Your task to perform on an android device: Add lenovo thinkpad to the cart on target.com, then select checkout. Image 0: 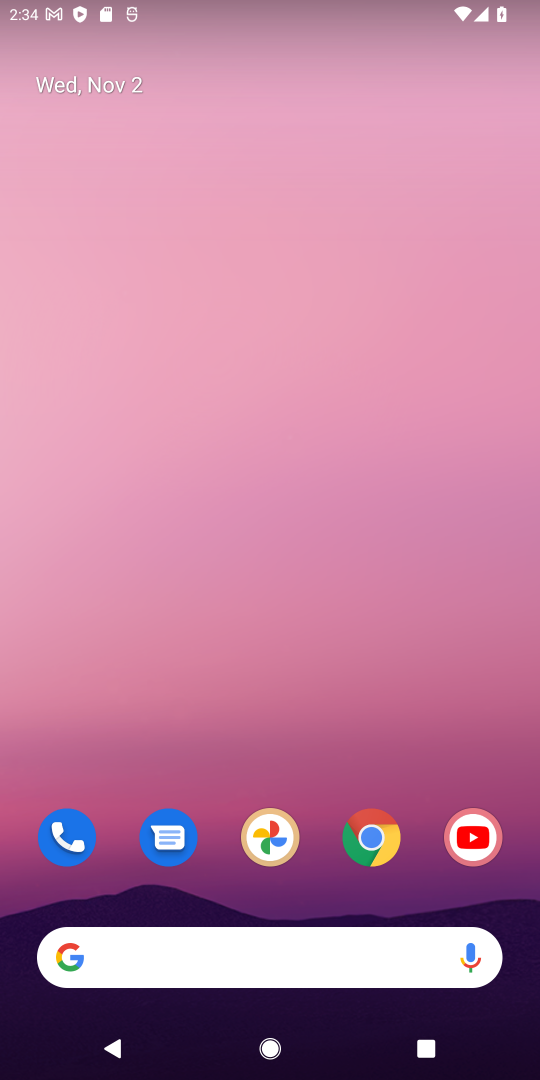
Step 0: press home button
Your task to perform on an android device: Add lenovo thinkpad to the cart on target.com, then select checkout. Image 1: 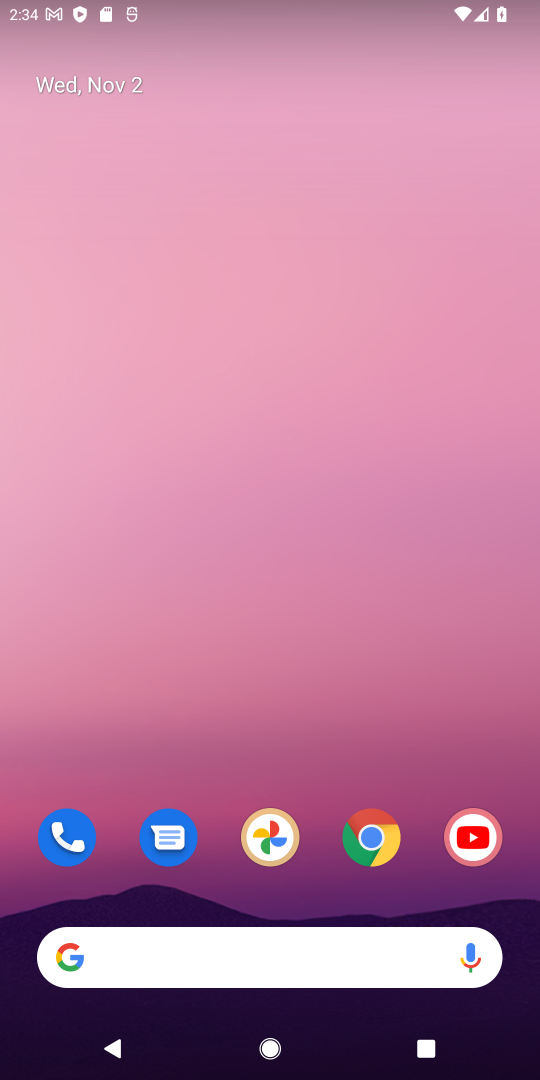
Step 1: drag from (316, 790) to (339, 163)
Your task to perform on an android device: Add lenovo thinkpad to the cart on target.com, then select checkout. Image 2: 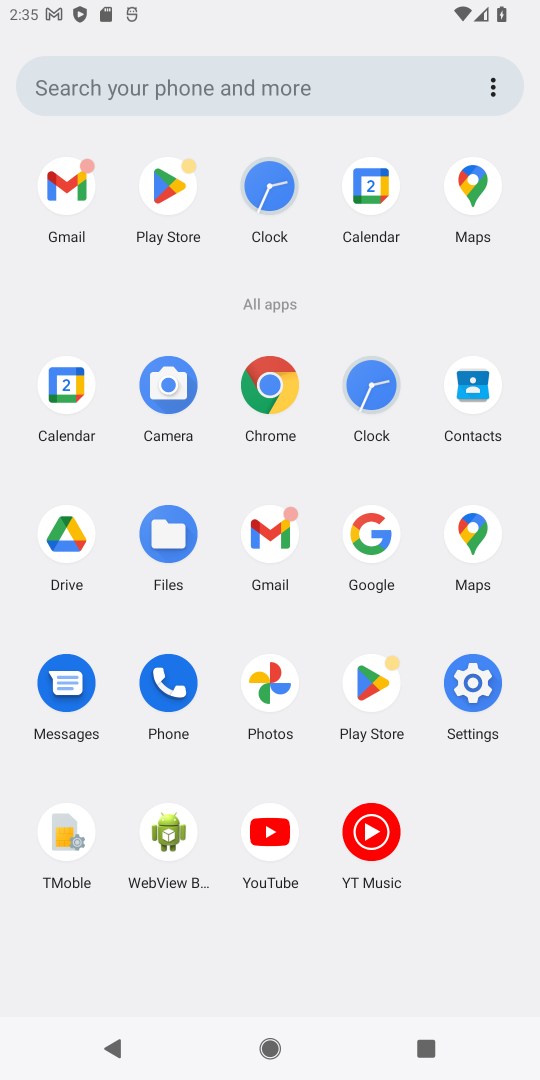
Step 2: click (266, 379)
Your task to perform on an android device: Add lenovo thinkpad to the cart on target.com, then select checkout. Image 3: 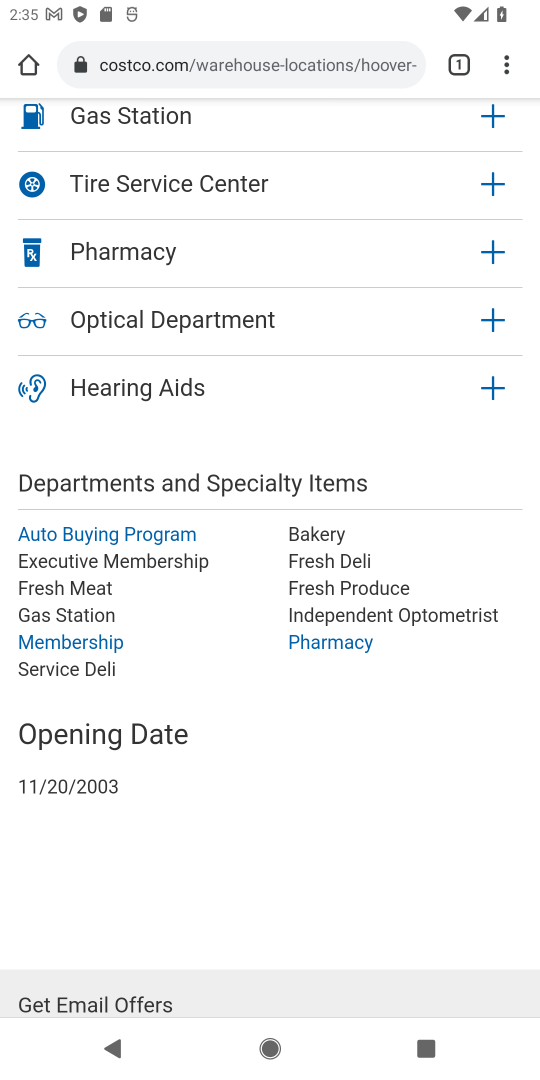
Step 3: click (159, 61)
Your task to perform on an android device: Add lenovo thinkpad to the cart on target.com, then select checkout. Image 4: 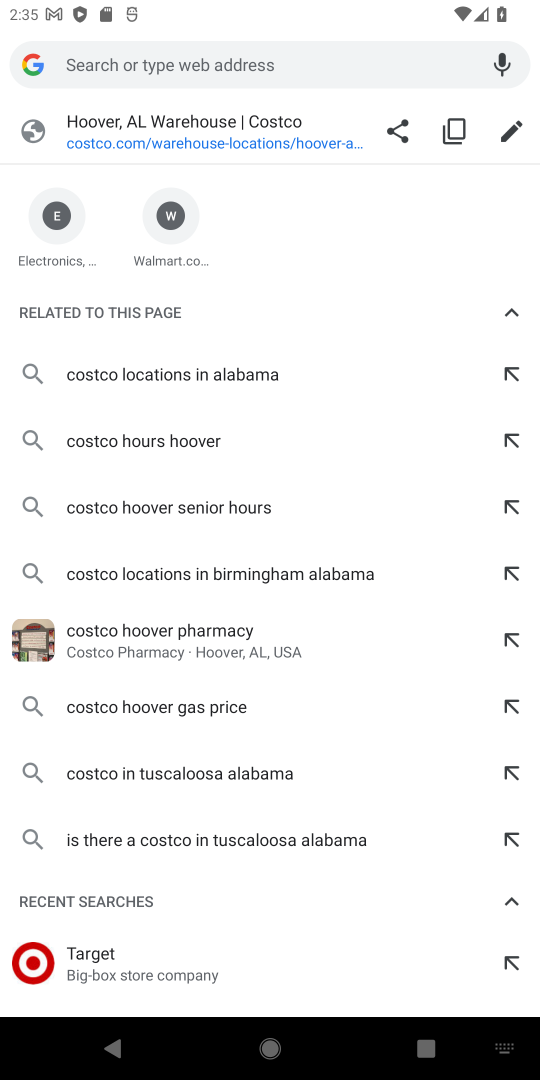
Step 4: type "target.com"
Your task to perform on an android device: Add lenovo thinkpad to the cart on target.com, then select checkout. Image 5: 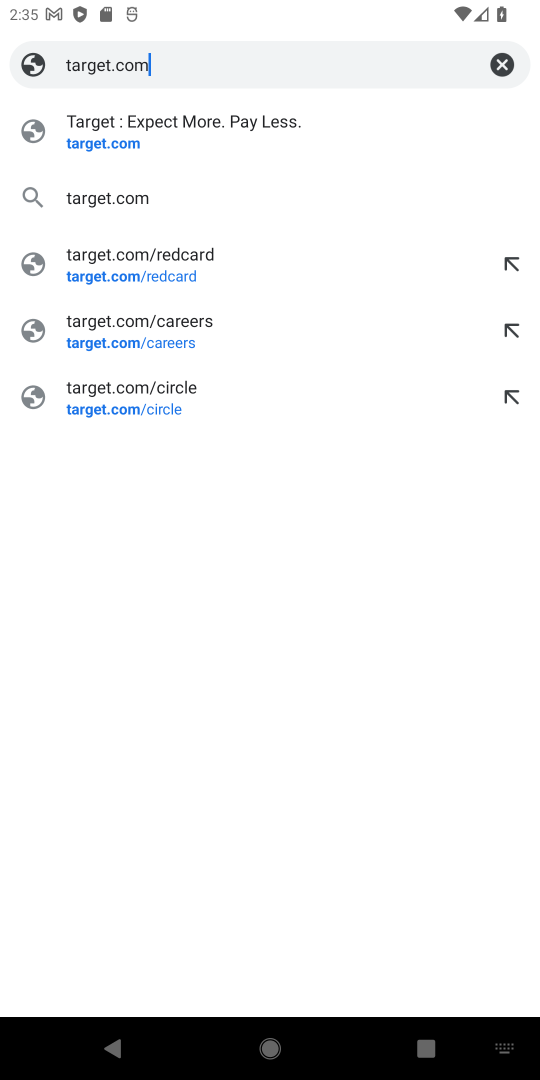
Step 5: click (148, 141)
Your task to perform on an android device: Add lenovo thinkpad to the cart on target.com, then select checkout. Image 6: 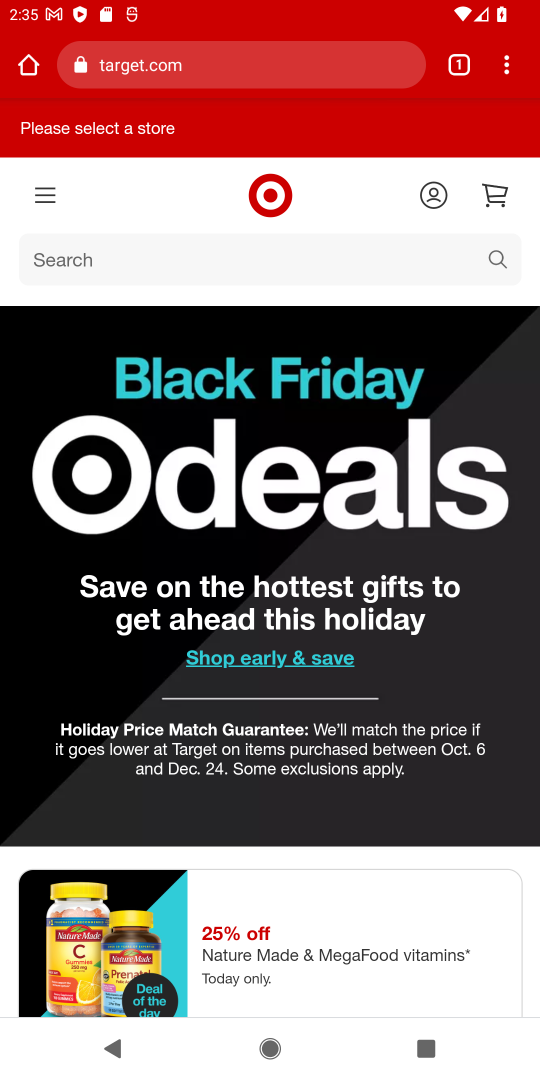
Step 6: click (86, 260)
Your task to perform on an android device: Add lenovo thinkpad to the cart on target.com, then select checkout. Image 7: 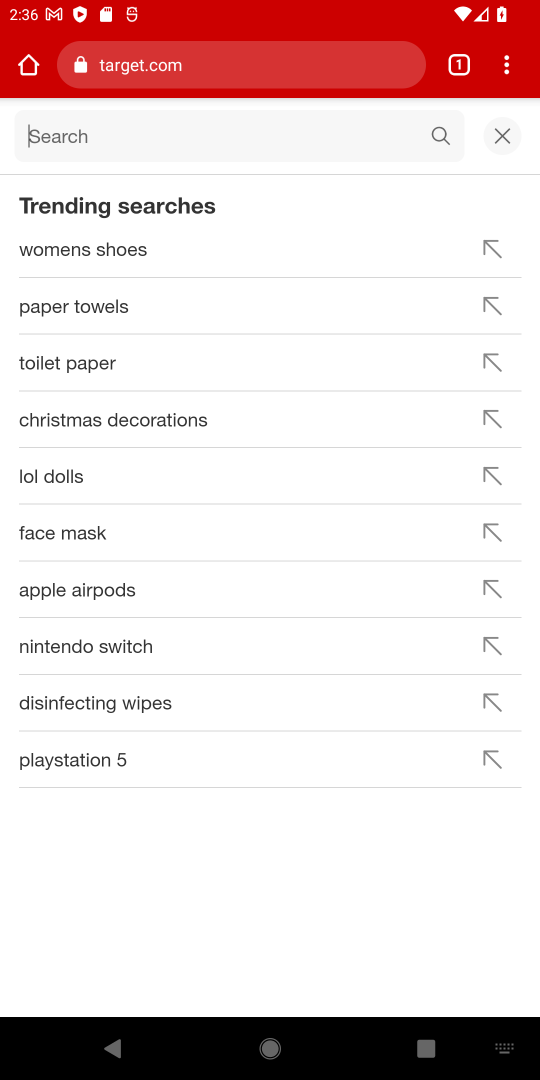
Step 7: type "lenovo thinkpad"
Your task to perform on an android device: Add lenovo thinkpad to the cart on target.com, then select checkout. Image 8: 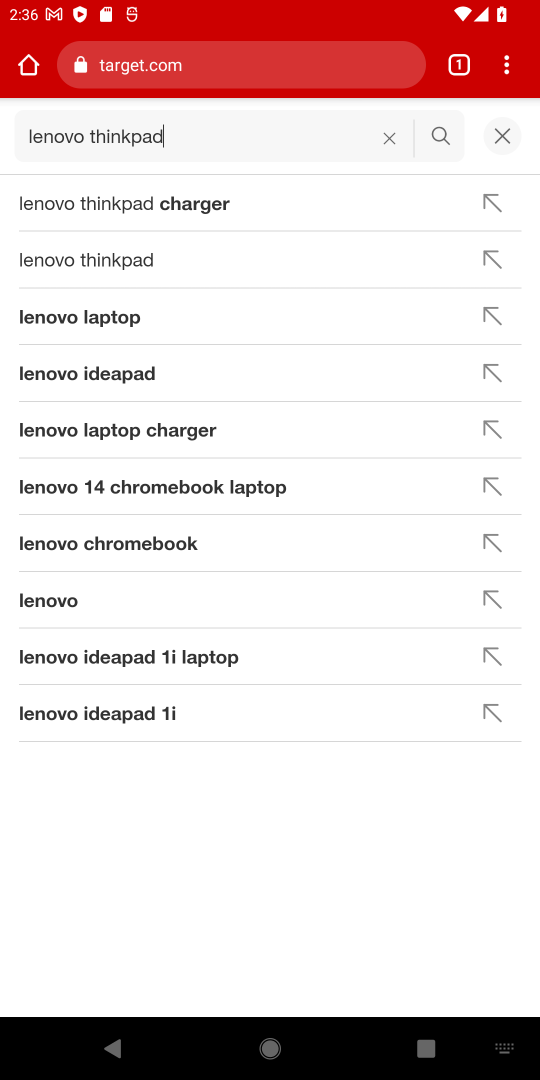
Step 8: click (143, 273)
Your task to perform on an android device: Add lenovo thinkpad to the cart on target.com, then select checkout. Image 9: 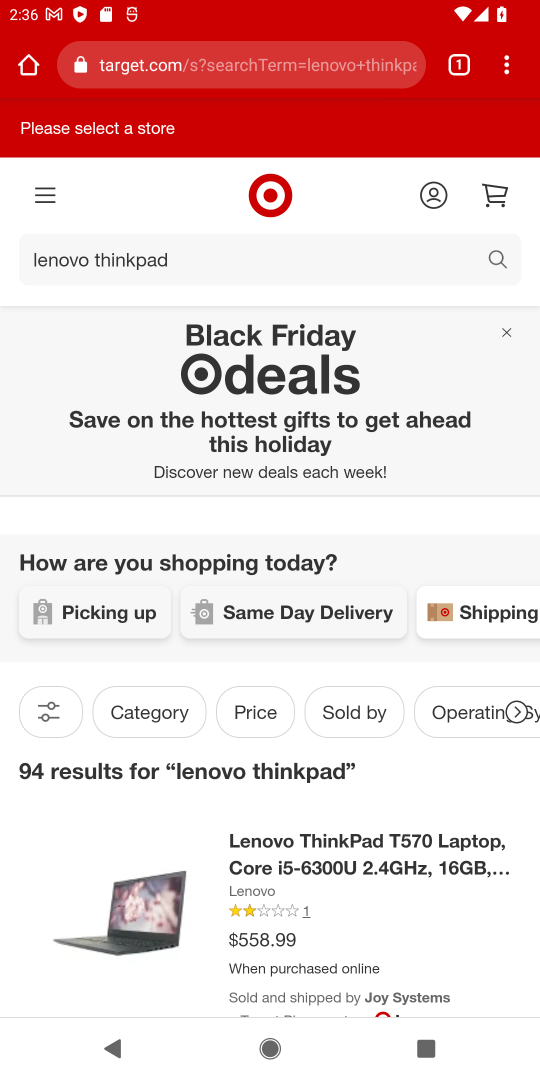
Step 9: click (303, 868)
Your task to perform on an android device: Add lenovo thinkpad to the cart on target.com, then select checkout. Image 10: 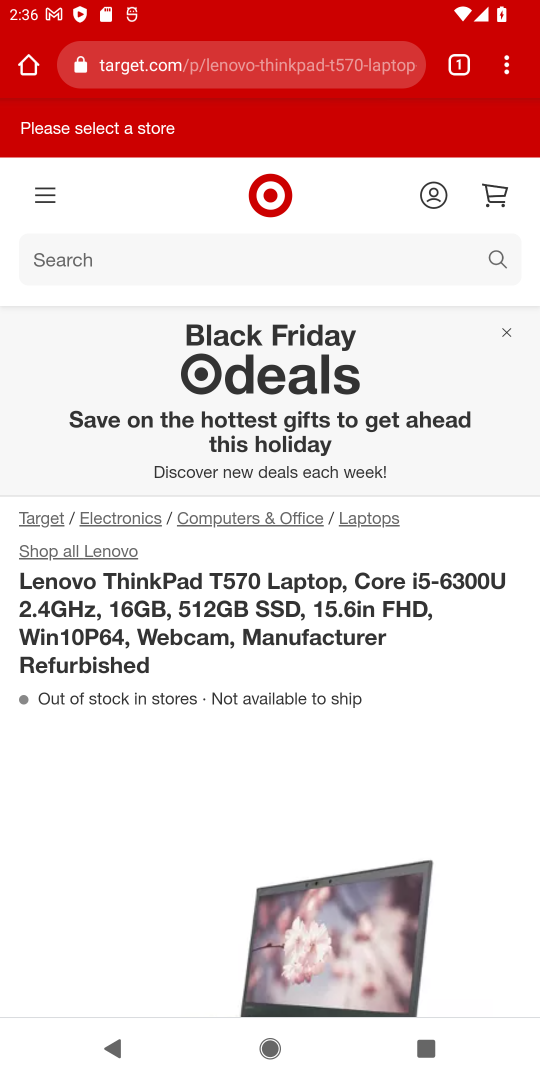
Step 10: drag from (112, 880) to (206, 265)
Your task to perform on an android device: Add lenovo thinkpad to the cart on target.com, then select checkout. Image 11: 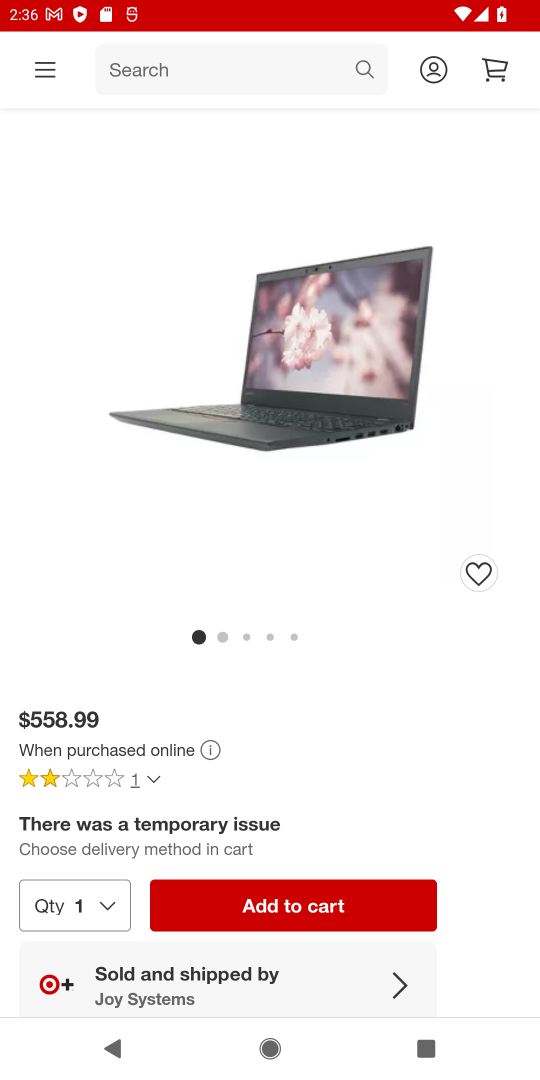
Step 11: click (298, 907)
Your task to perform on an android device: Add lenovo thinkpad to the cart on target.com, then select checkout. Image 12: 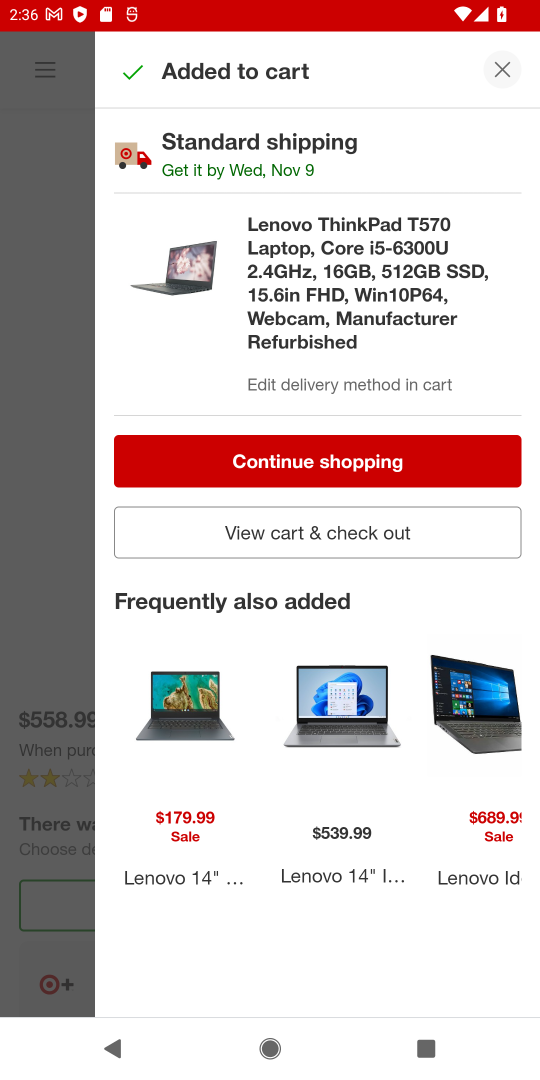
Step 12: click (500, 64)
Your task to perform on an android device: Add lenovo thinkpad to the cart on target.com, then select checkout. Image 13: 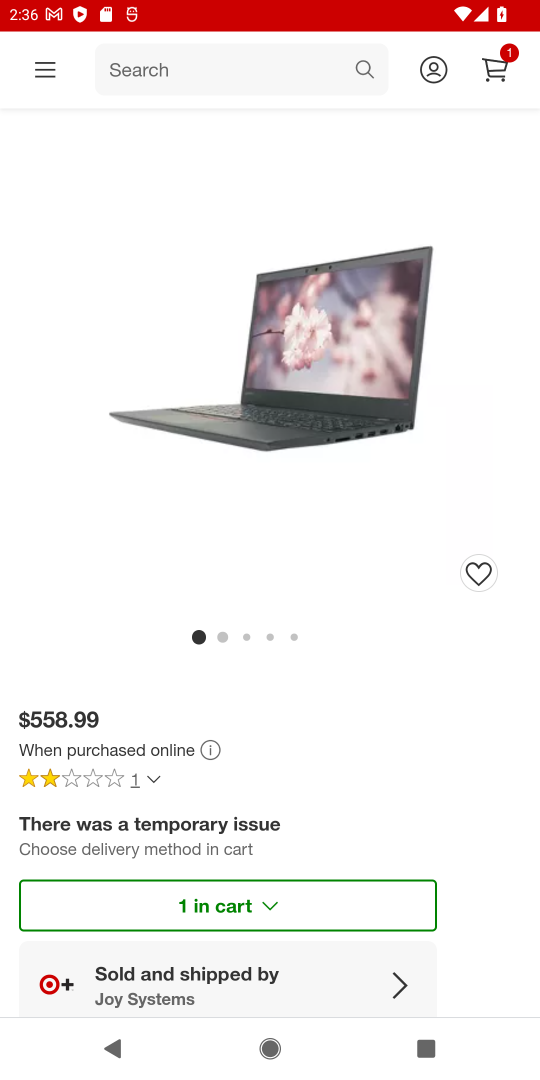
Step 13: click (497, 62)
Your task to perform on an android device: Add lenovo thinkpad to the cart on target.com, then select checkout. Image 14: 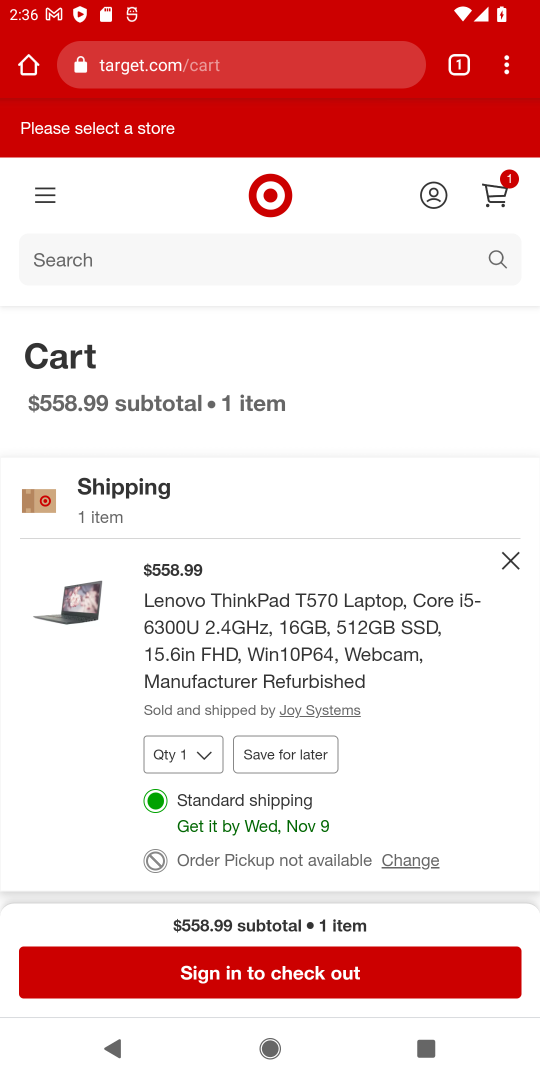
Step 14: click (248, 976)
Your task to perform on an android device: Add lenovo thinkpad to the cart on target.com, then select checkout. Image 15: 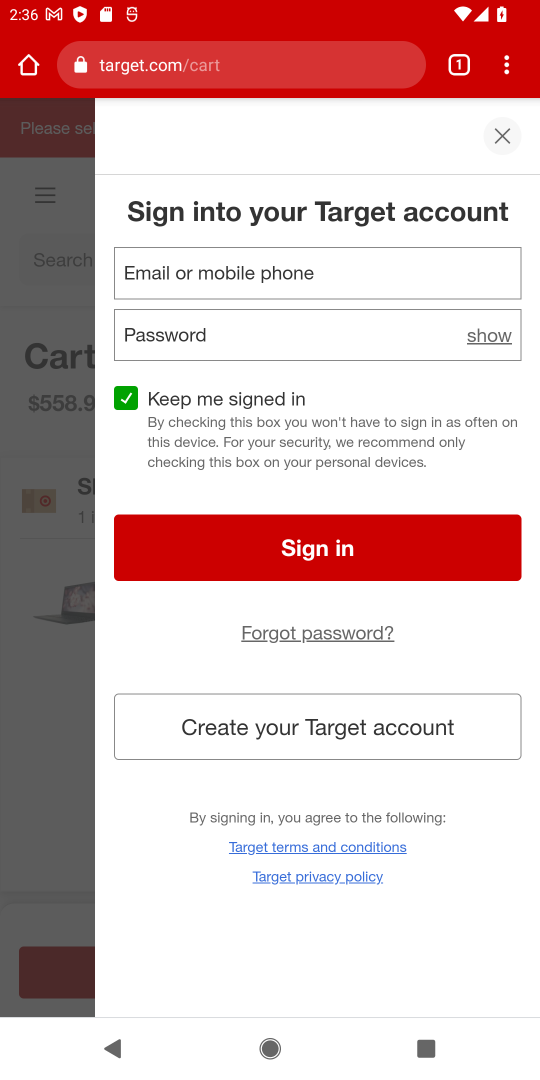
Step 15: task complete